Your task to perform on an android device: Check the weather Image 0: 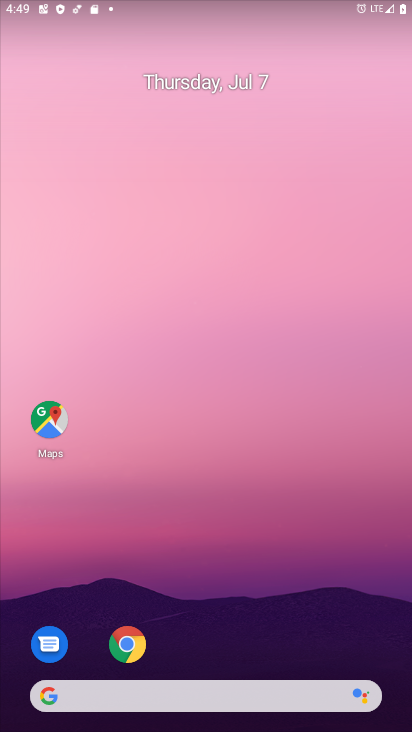
Step 0: drag from (263, 625) to (274, 97)
Your task to perform on an android device: Check the weather Image 1: 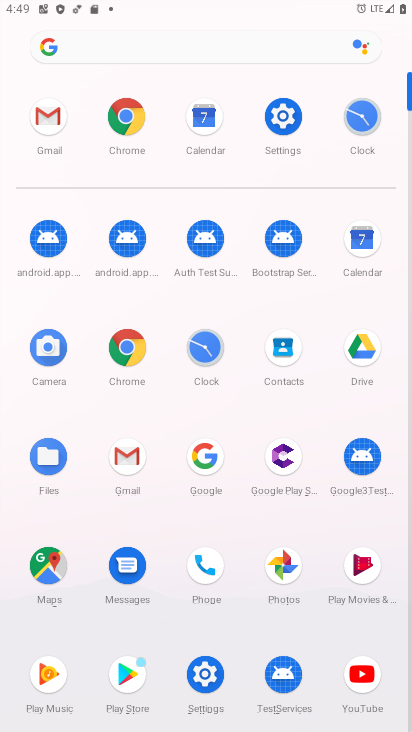
Step 1: click (205, 453)
Your task to perform on an android device: Check the weather Image 2: 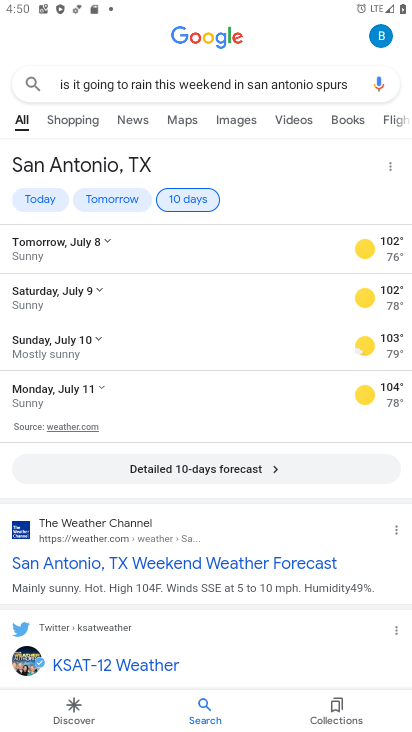
Step 2: click (349, 85)
Your task to perform on an android device: Check the weather Image 3: 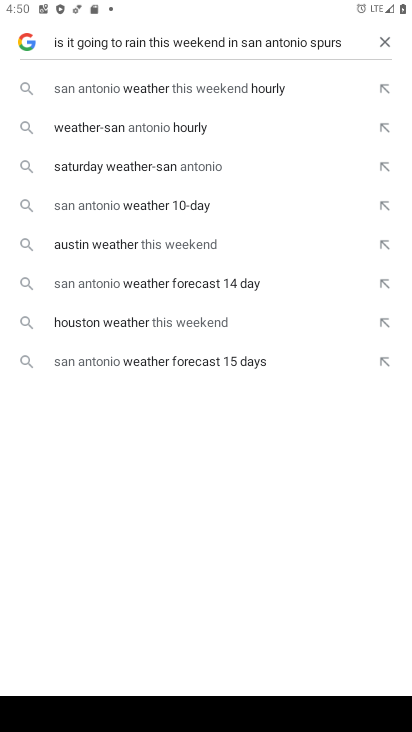
Step 3: click (390, 38)
Your task to perform on an android device: Check the weather Image 4: 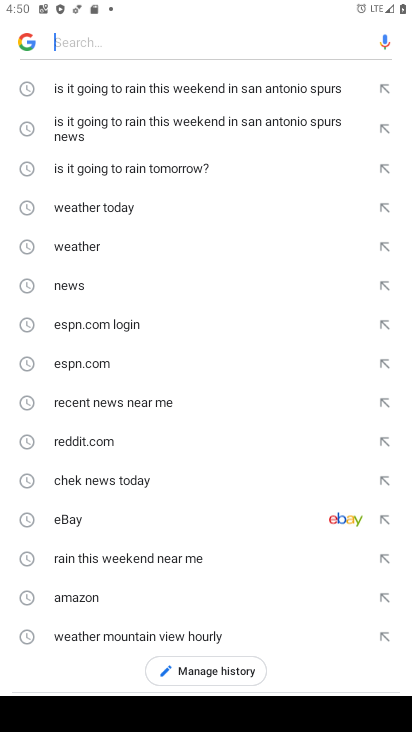
Step 4: click (98, 251)
Your task to perform on an android device: Check the weather Image 5: 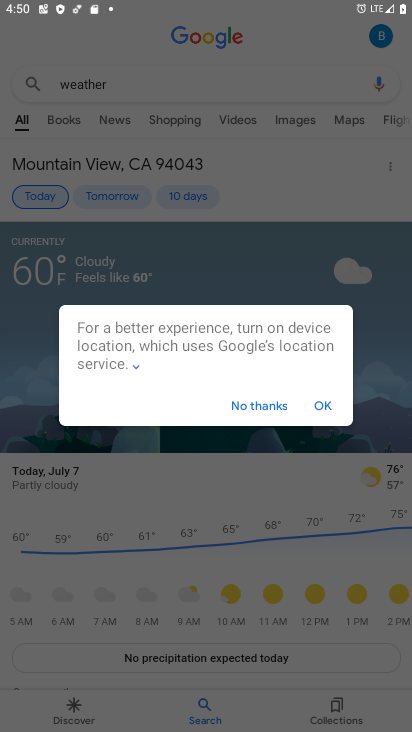
Step 5: click (324, 406)
Your task to perform on an android device: Check the weather Image 6: 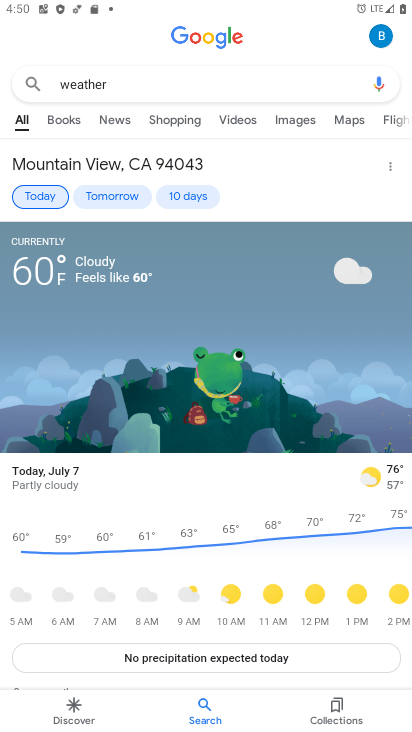
Step 6: task complete